Your task to perform on an android device: Find coffee shops on Maps Image 0: 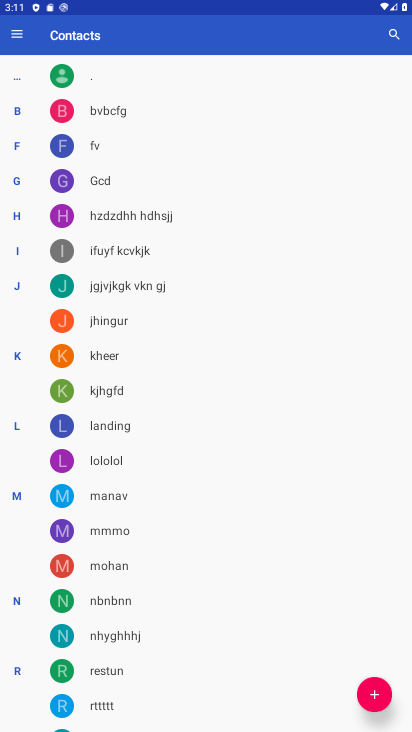
Step 0: press home button
Your task to perform on an android device: Find coffee shops on Maps Image 1: 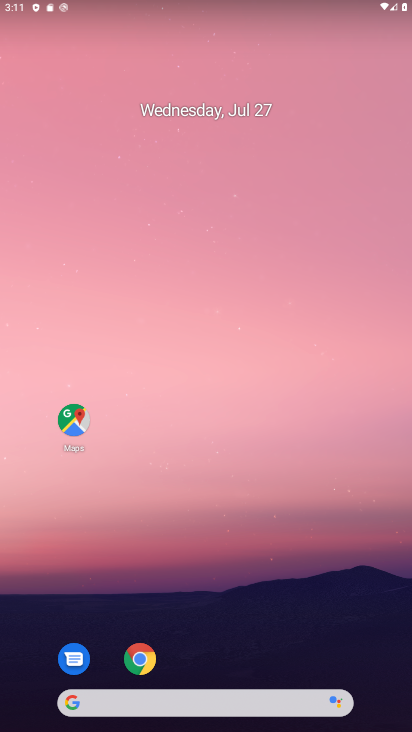
Step 1: click (76, 425)
Your task to perform on an android device: Find coffee shops on Maps Image 2: 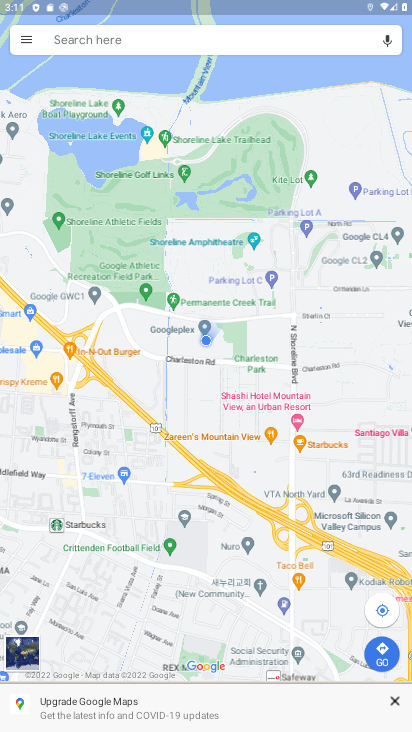
Step 2: click (61, 43)
Your task to perform on an android device: Find coffee shops on Maps Image 3: 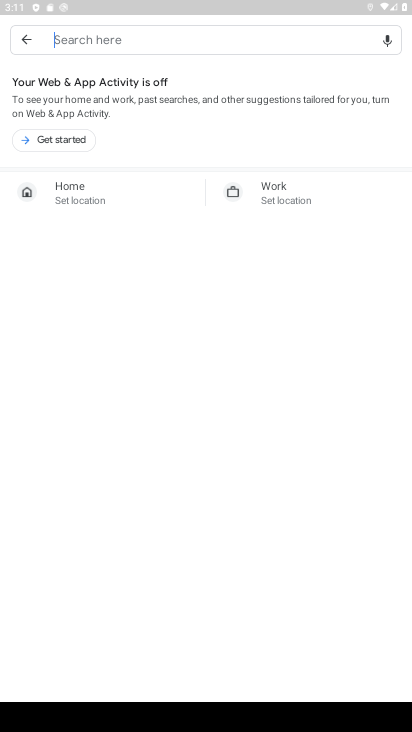
Step 3: type "coffee shops"
Your task to perform on an android device: Find coffee shops on Maps Image 4: 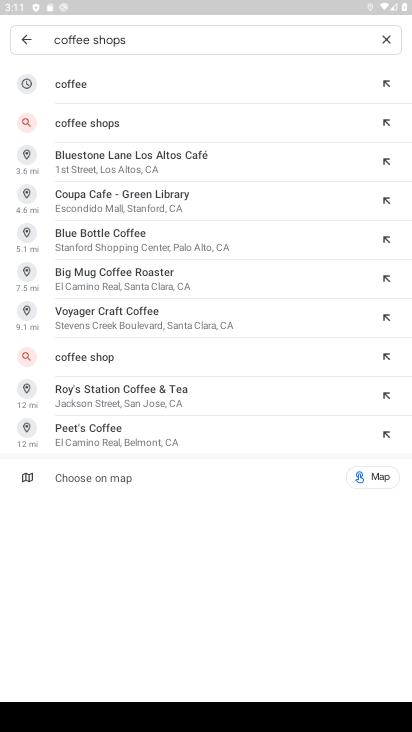
Step 4: click (105, 125)
Your task to perform on an android device: Find coffee shops on Maps Image 5: 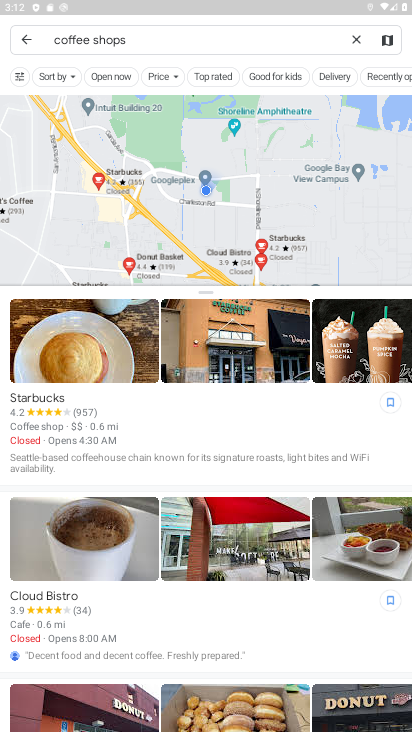
Step 5: task complete